Your task to perform on an android device: turn off smart reply in the gmail app Image 0: 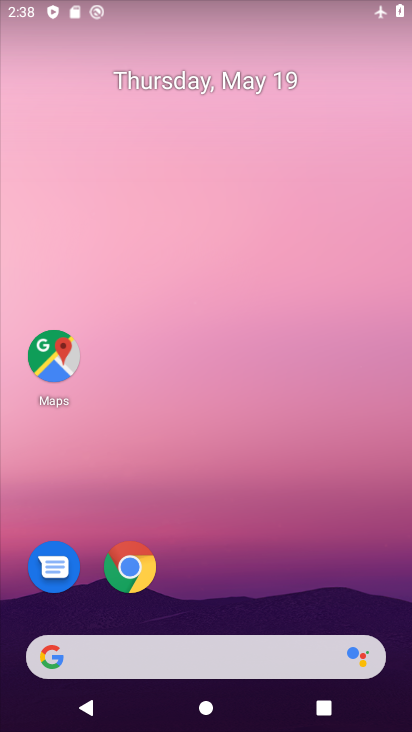
Step 0: drag from (230, 626) to (144, 156)
Your task to perform on an android device: turn off smart reply in the gmail app Image 1: 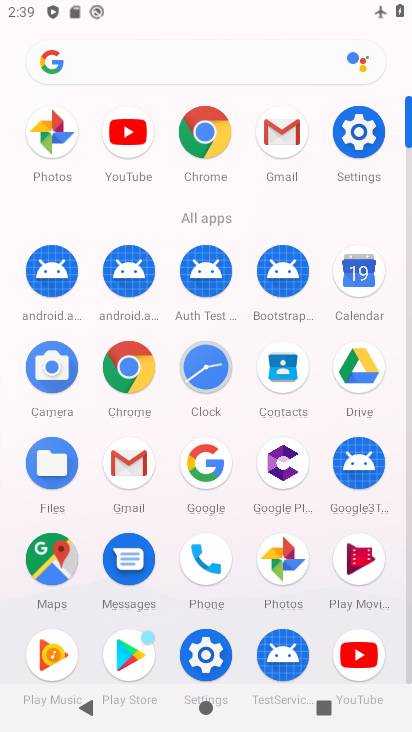
Step 1: click (360, 142)
Your task to perform on an android device: turn off smart reply in the gmail app Image 2: 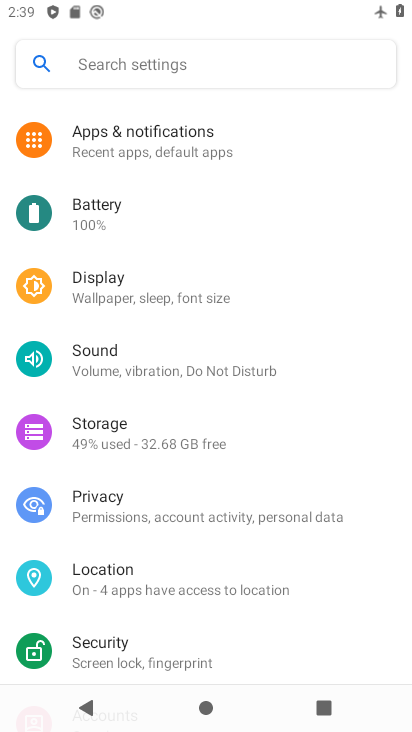
Step 2: press back button
Your task to perform on an android device: turn off smart reply in the gmail app Image 3: 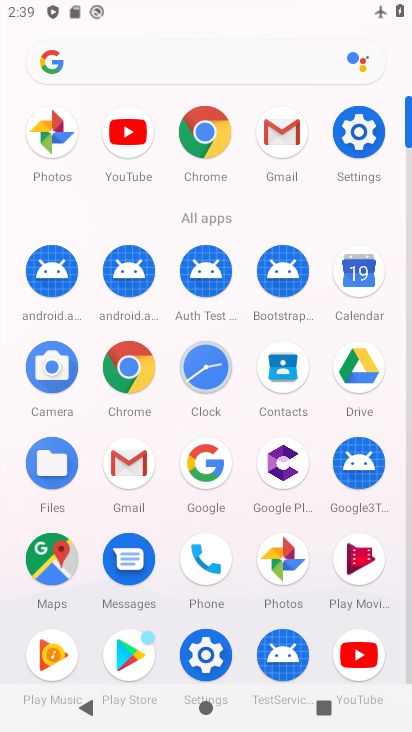
Step 3: click (107, 463)
Your task to perform on an android device: turn off smart reply in the gmail app Image 4: 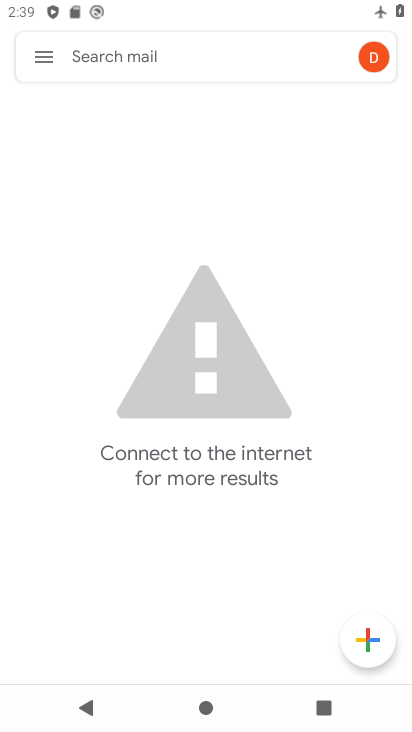
Step 4: click (43, 45)
Your task to perform on an android device: turn off smart reply in the gmail app Image 5: 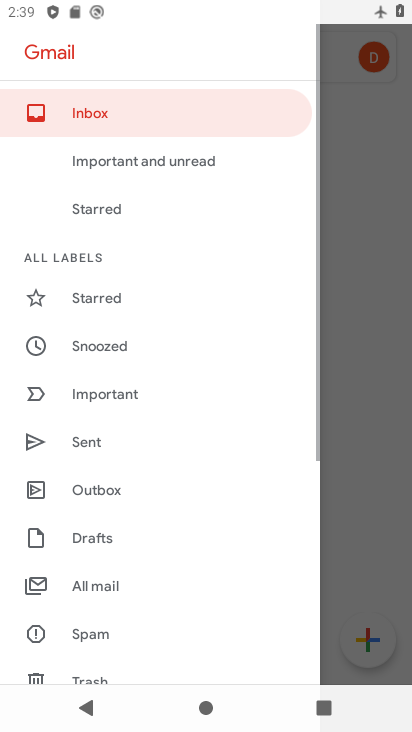
Step 5: drag from (205, 600) to (189, 129)
Your task to perform on an android device: turn off smart reply in the gmail app Image 6: 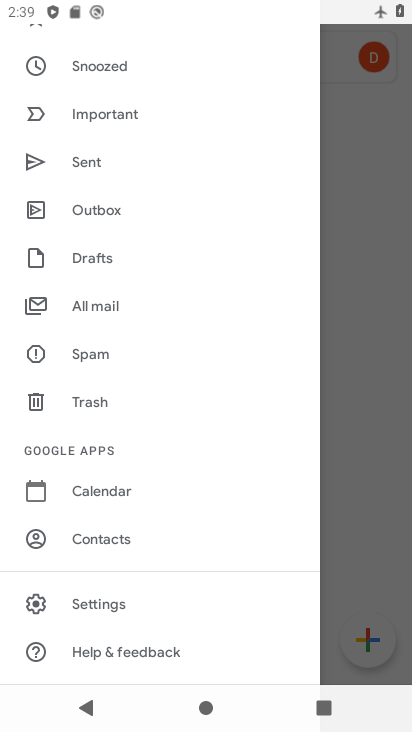
Step 6: click (111, 606)
Your task to perform on an android device: turn off smart reply in the gmail app Image 7: 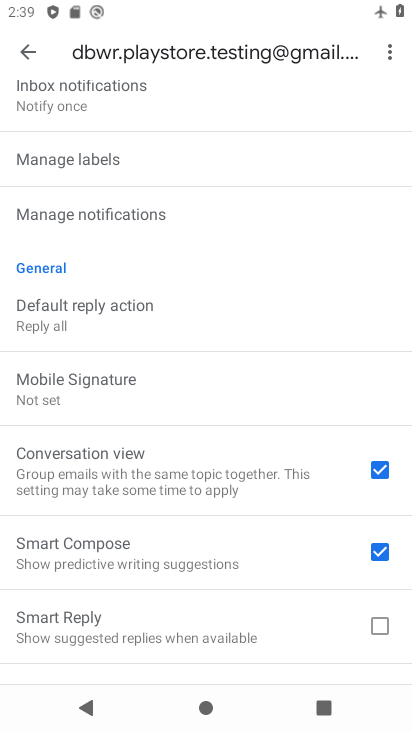
Step 7: task complete